Your task to perform on an android device: check storage Image 0: 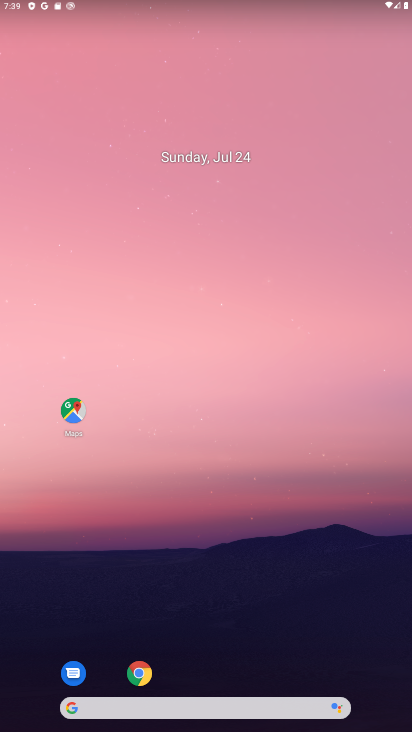
Step 0: drag from (20, 672) to (194, 199)
Your task to perform on an android device: check storage Image 1: 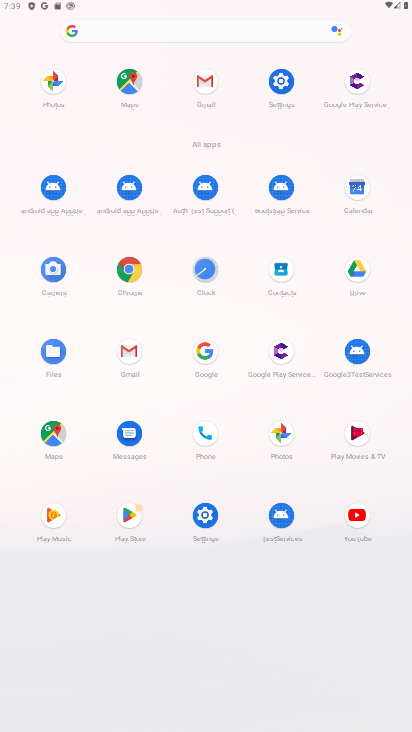
Step 1: click (198, 513)
Your task to perform on an android device: check storage Image 2: 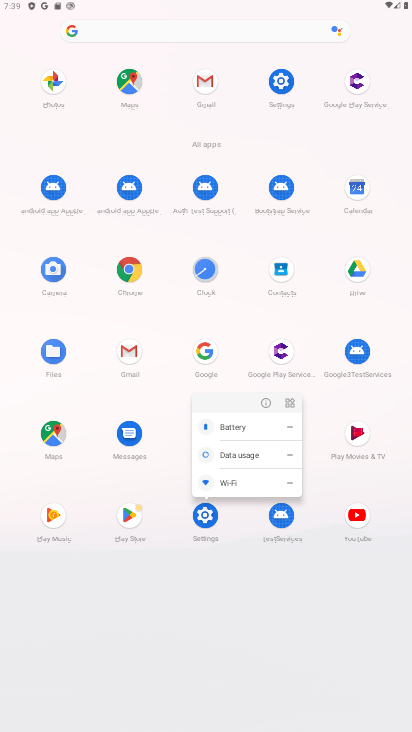
Step 2: click (202, 511)
Your task to perform on an android device: check storage Image 3: 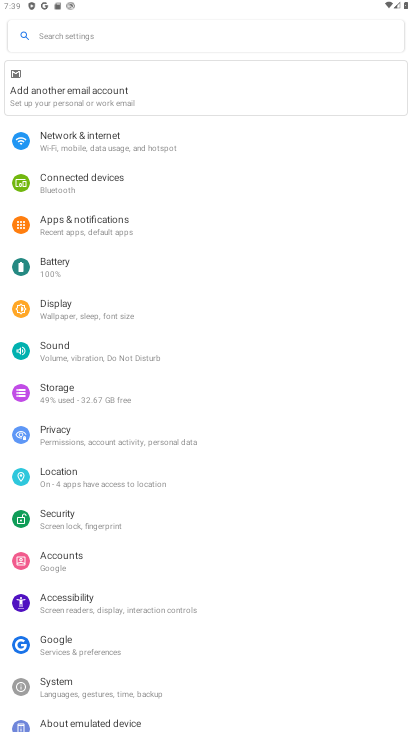
Step 3: click (69, 394)
Your task to perform on an android device: check storage Image 4: 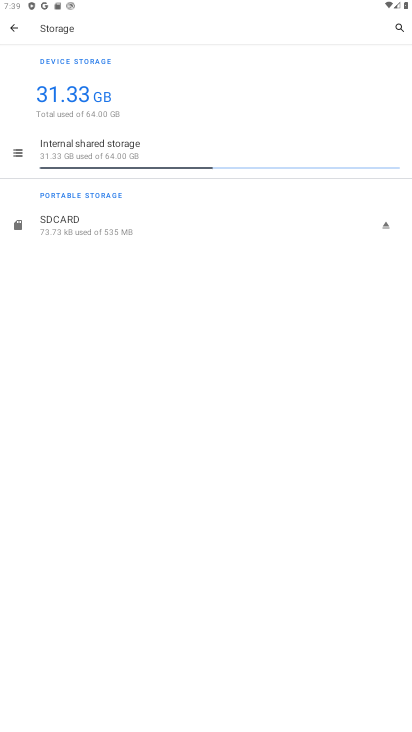
Step 4: task complete